Your task to perform on an android device: Go to network settings Image 0: 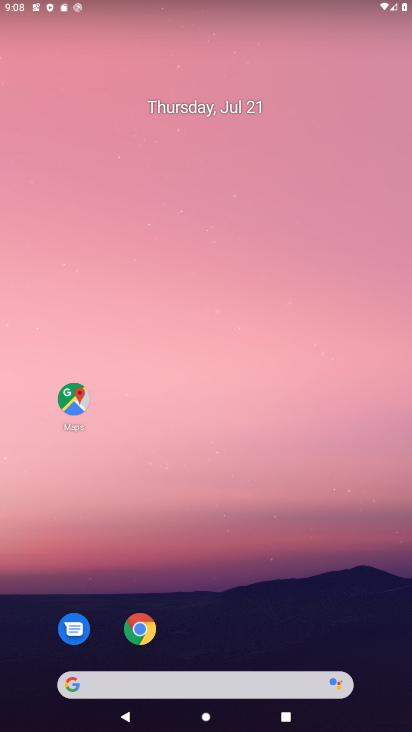
Step 0: drag from (248, 18) to (239, 274)
Your task to perform on an android device: Go to network settings Image 1: 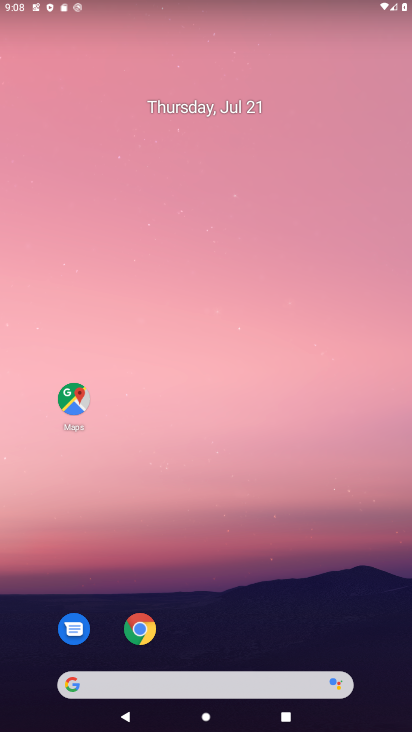
Step 1: drag from (207, 3) to (131, 553)
Your task to perform on an android device: Go to network settings Image 2: 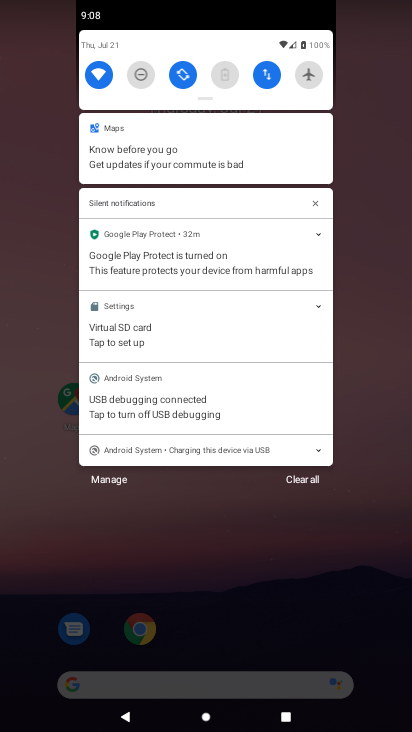
Step 2: click (264, 63)
Your task to perform on an android device: Go to network settings Image 3: 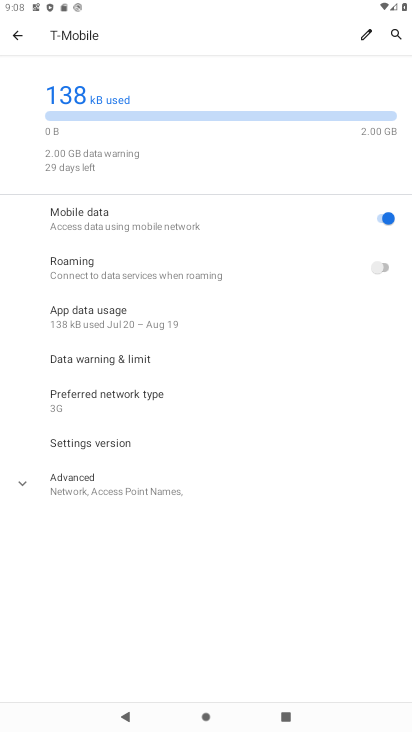
Step 3: task complete